Your task to perform on an android device: toggle data saver in the chrome app Image 0: 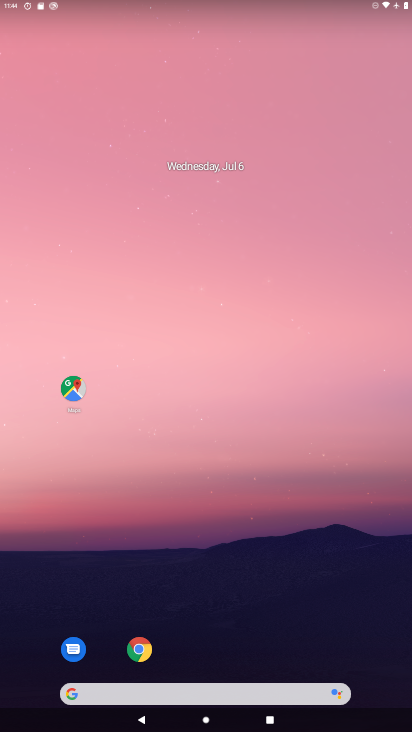
Step 0: drag from (393, 687) to (316, 193)
Your task to perform on an android device: toggle data saver in the chrome app Image 1: 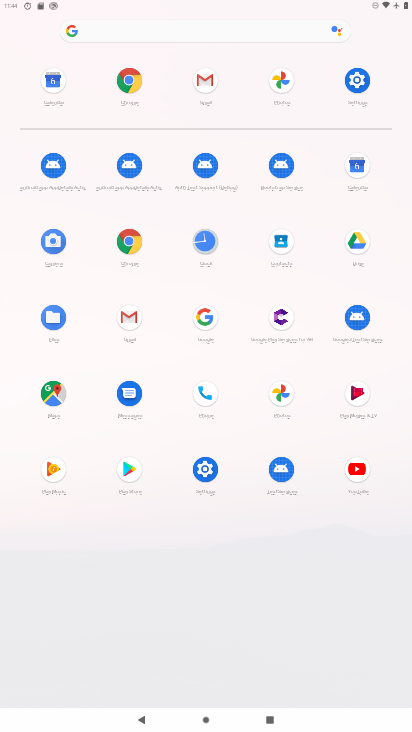
Step 1: click (130, 241)
Your task to perform on an android device: toggle data saver in the chrome app Image 2: 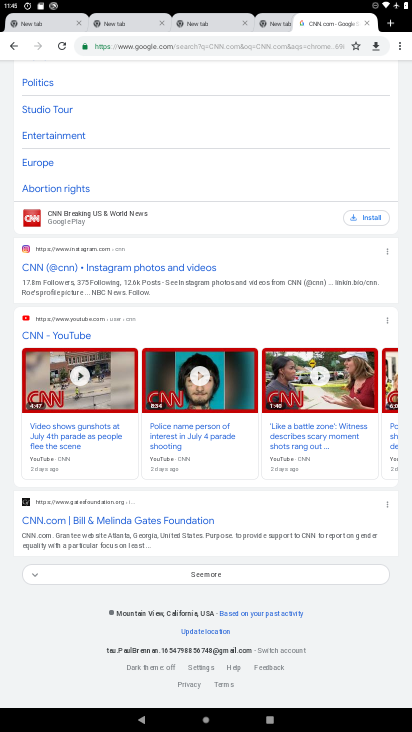
Step 2: click (399, 47)
Your task to perform on an android device: toggle data saver in the chrome app Image 3: 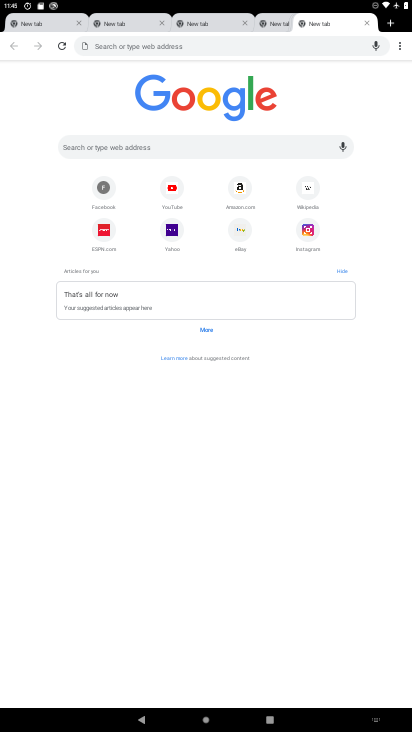
Step 3: click (399, 47)
Your task to perform on an android device: toggle data saver in the chrome app Image 4: 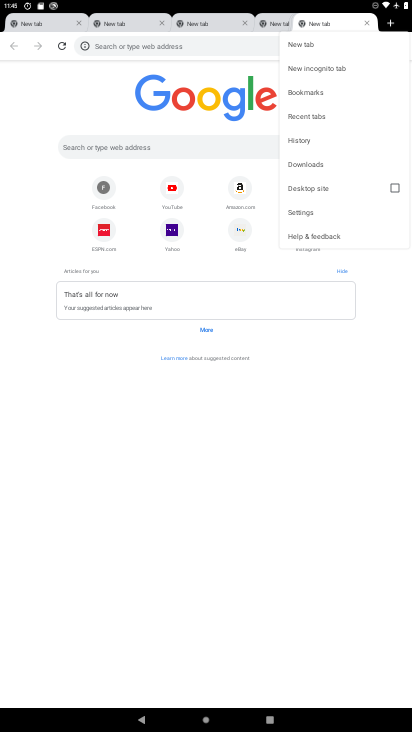
Step 4: click (299, 213)
Your task to perform on an android device: toggle data saver in the chrome app Image 5: 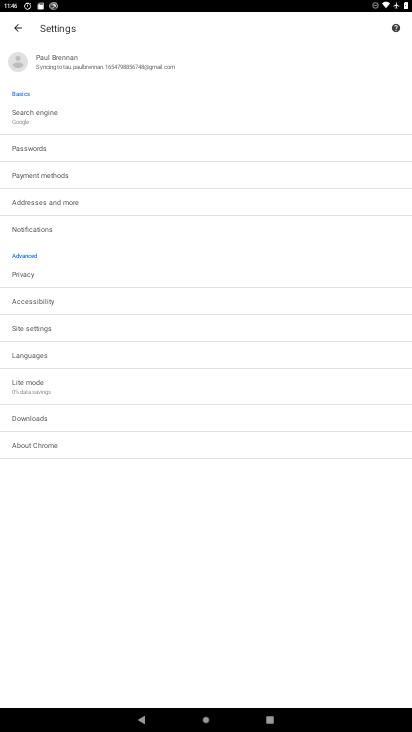
Step 5: click (33, 382)
Your task to perform on an android device: toggle data saver in the chrome app Image 6: 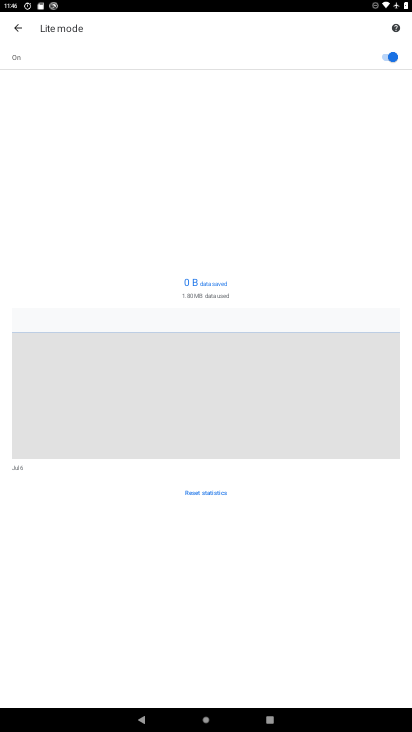
Step 6: click (388, 54)
Your task to perform on an android device: toggle data saver in the chrome app Image 7: 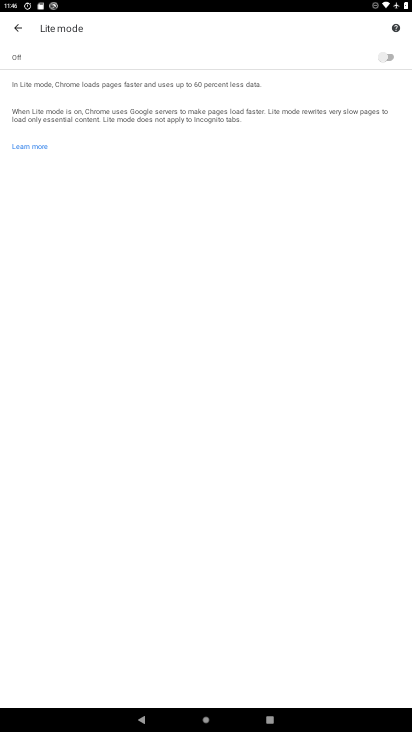
Step 7: task complete